Your task to perform on an android device: Go to Yahoo.com Image 0: 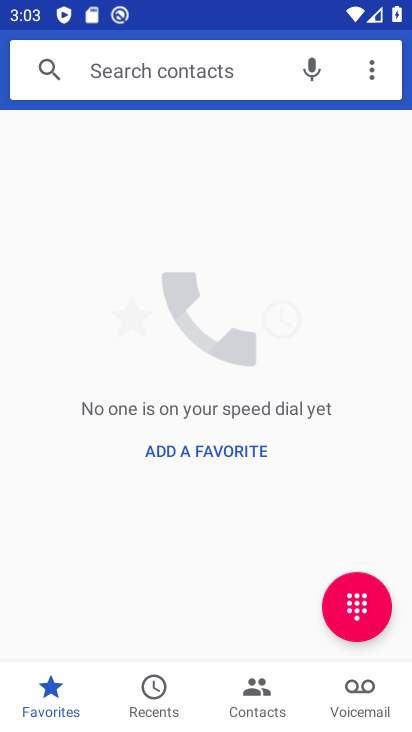
Step 0: press home button
Your task to perform on an android device: Go to Yahoo.com Image 1: 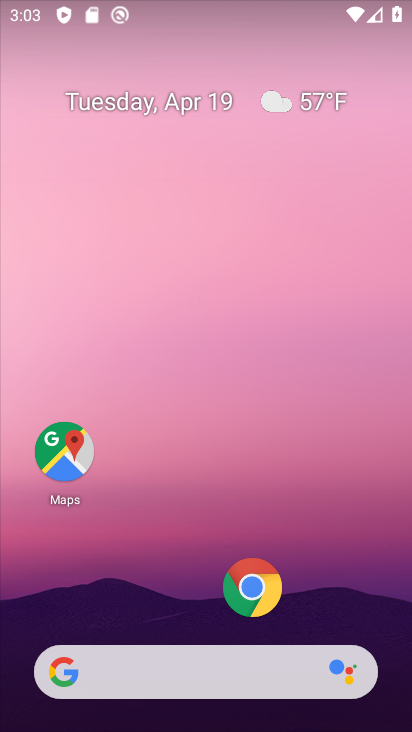
Step 1: click (252, 580)
Your task to perform on an android device: Go to Yahoo.com Image 2: 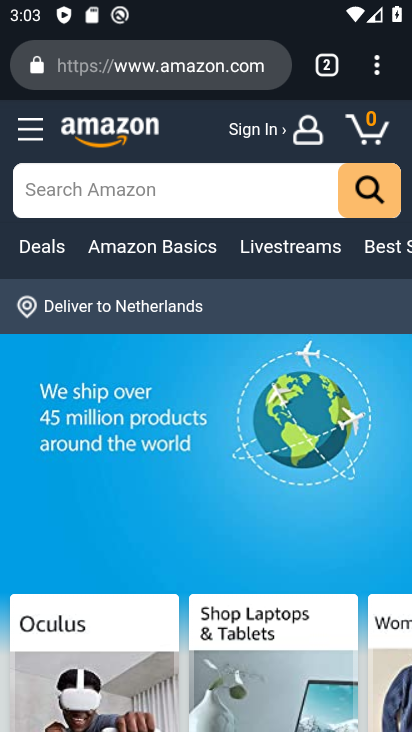
Step 2: click (191, 71)
Your task to perform on an android device: Go to Yahoo.com Image 3: 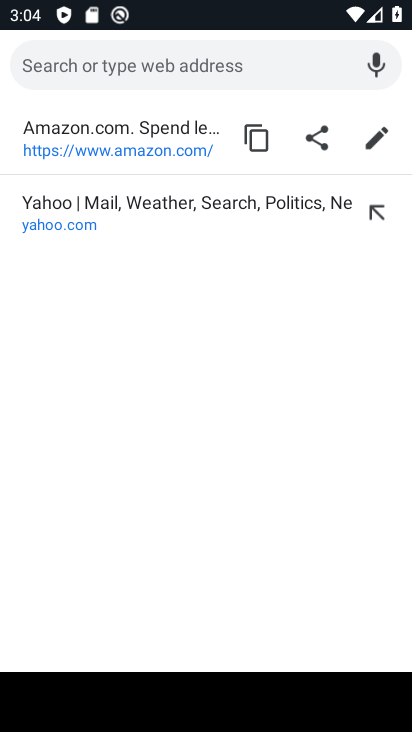
Step 3: type "yahoo.com"
Your task to perform on an android device: Go to Yahoo.com Image 4: 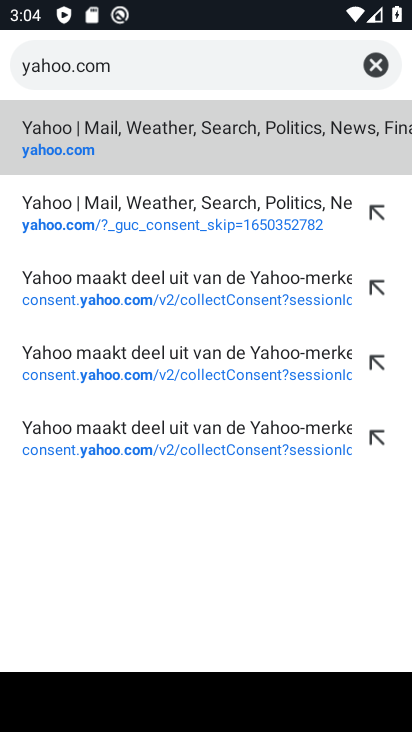
Step 4: click (144, 122)
Your task to perform on an android device: Go to Yahoo.com Image 5: 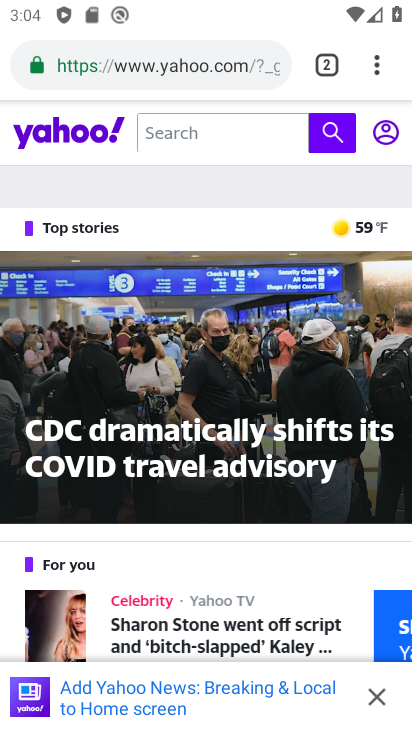
Step 5: task complete